Your task to perform on an android device: set default search engine in the chrome app Image 0: 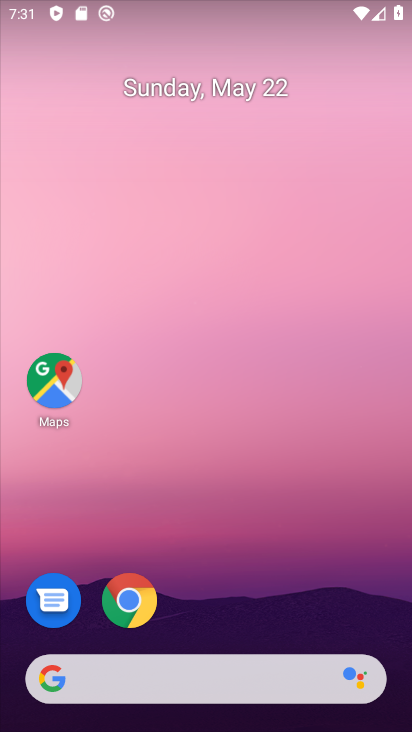
Step 0: drag from (254, 602) to (278, 23)
Your task to perform on an android device: set default search engine in the chrome app Image 1: 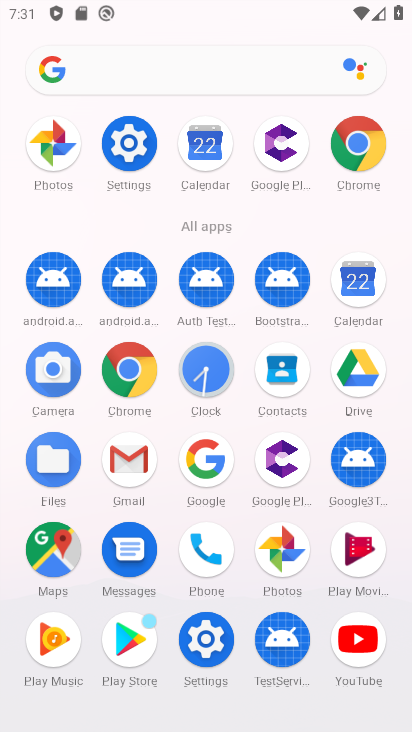
Step 1: drag from (13, 573) to (11, 276)
Your task to perform on an android device: set default search engine in the chrome app Image 2: 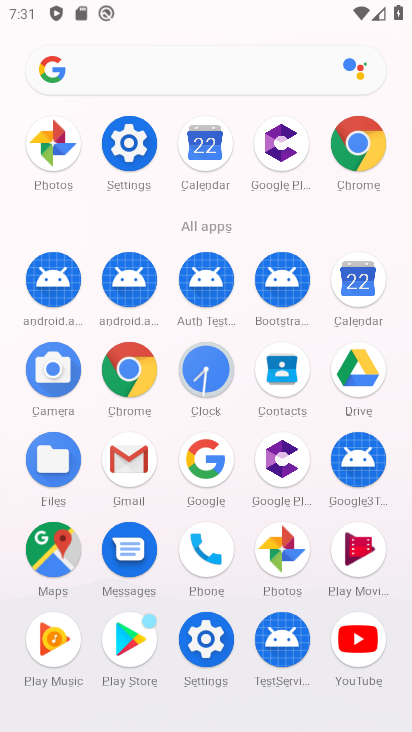
Step 2: click (126, 365)
Your task to perform on an android device: set default search engine in the chrome app Image 3: 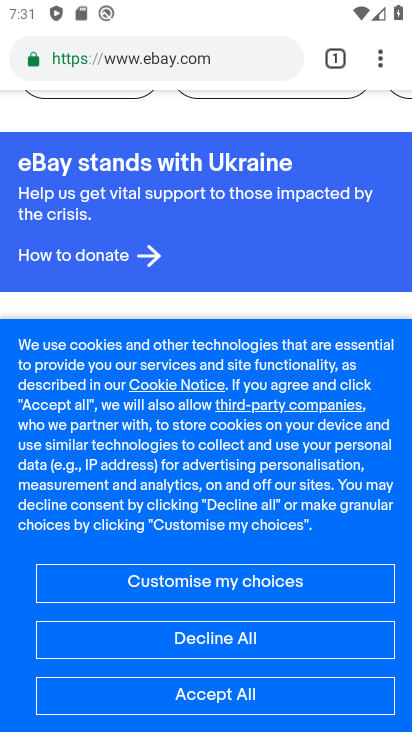
Step 3: drag from (345, 121) to (377, 350)
Your task to perform on an android device: set default search engine in the chrome app Image 4: 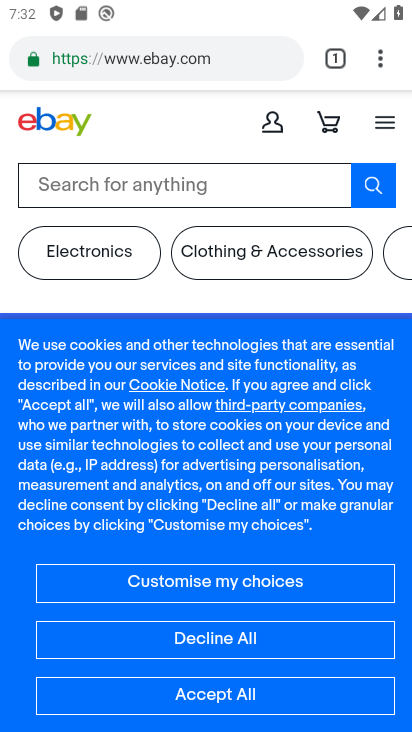
Step 4: drag from (376, 61) to (207, 651)
Your task to perform on an android device: set default search engine in the chrome app Image 5: 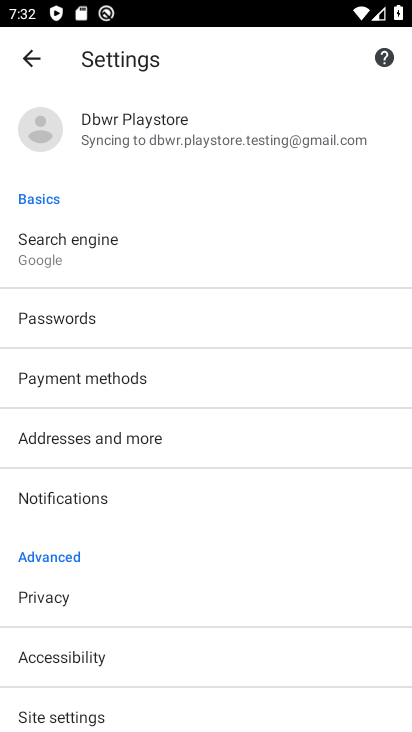
Step 5: click (93, 246)
Your task to perform on an android device: set default search engine in the chrome app Image 6: 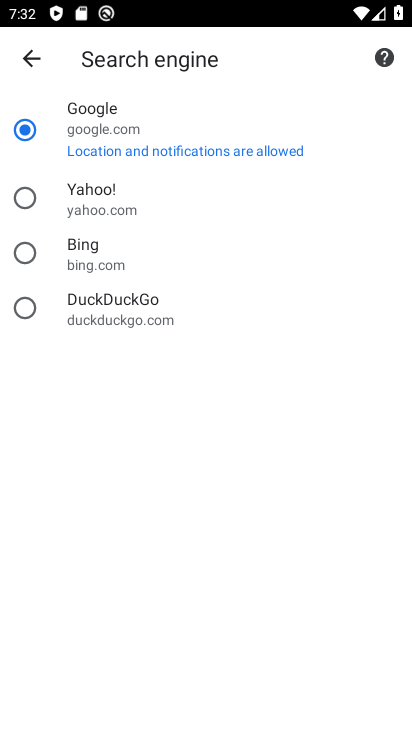
Step 6: click (89, 111)
Your task to perform on an android device: set default search engine in the chrome app Image 7: 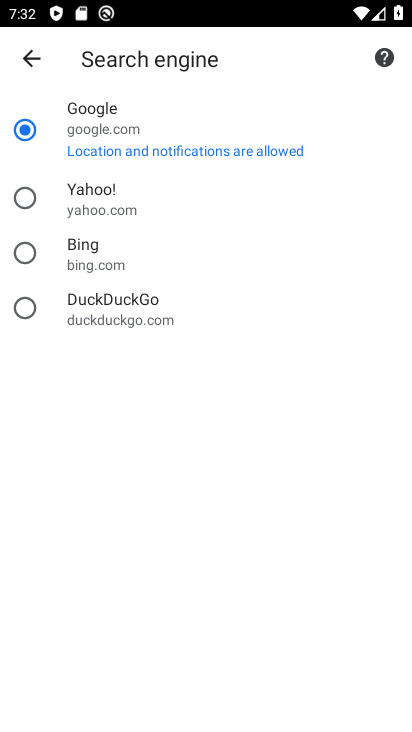
Step 7: task complete